Your task to perform on an android device: Open Chrome and go to the settings page Image 0: 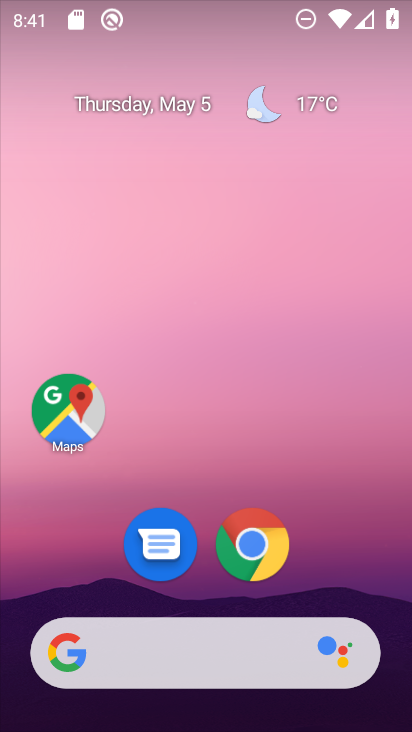
Step 0: drag from (393, 638) to (264, 134)
Your task to perform on an android device: Open Chrome and go to the settings page Image 1: 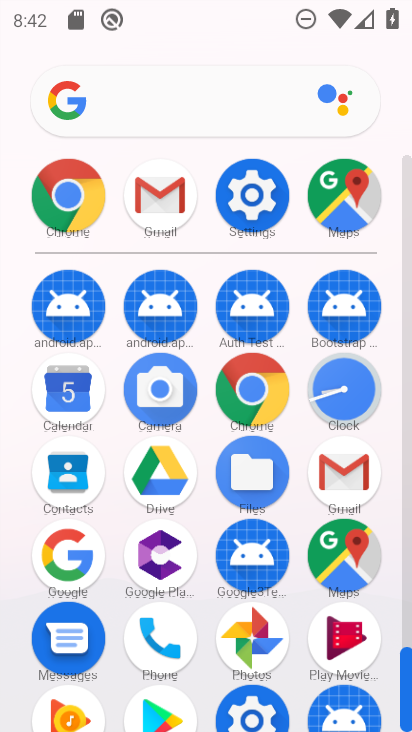
Step 1: click (69, 192)
Your task to perform on an android device: Open Chrome and go to the settings page Image 2: 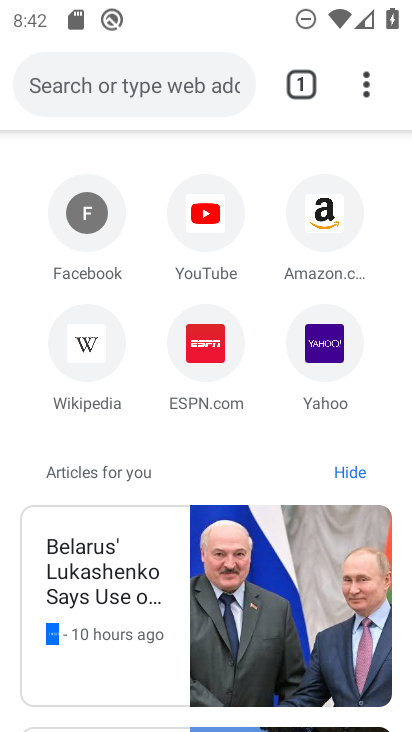
Step 2: click (362, 82)
Your task to perform on an android device: Open Chrome and go to the settings page Image 3: 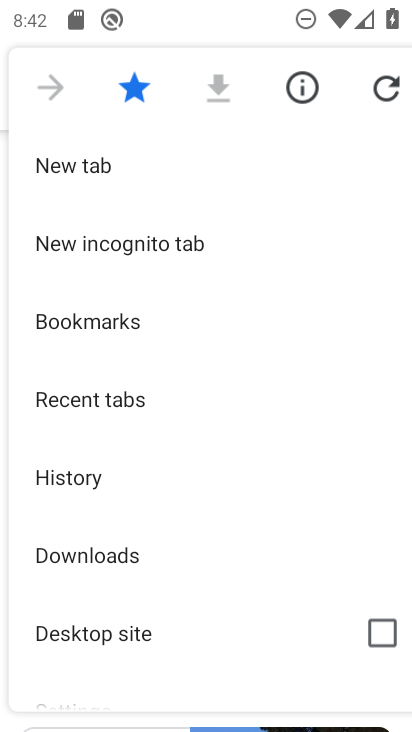
Step 3: drag from (94, 638) to (84, 215)
Your task to perform on an android device: Open Chrome and go to the settings page Image 4: 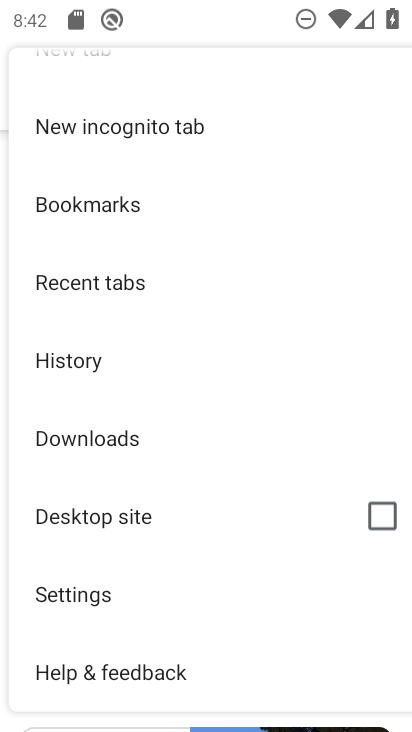
Step 4: click (70, 610)
Your task to perform on an android device: Open Chrome and go to the settings page Image 5: 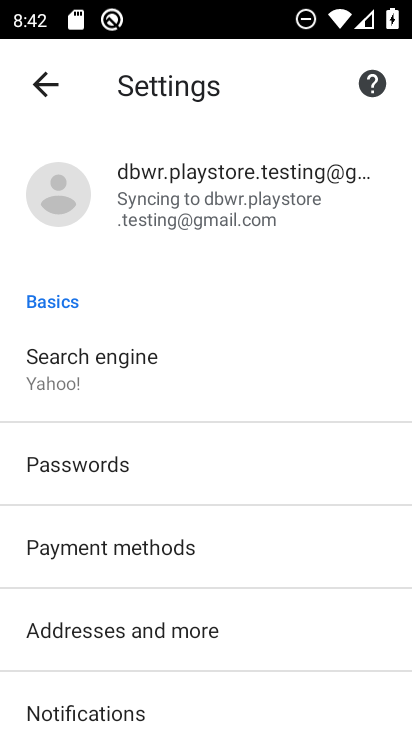
Step 5: task complete